Your task to perform on an android device: Is it going to rain today? Image 0: 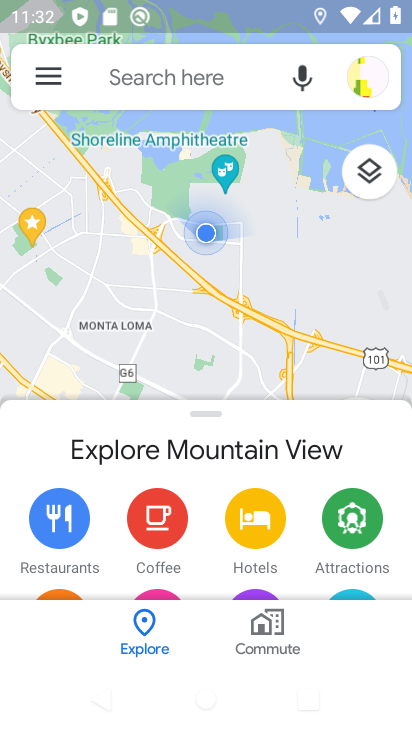
Step 0: press home button
Your task to perform on an android device: Is it going to rain today? Image 1: 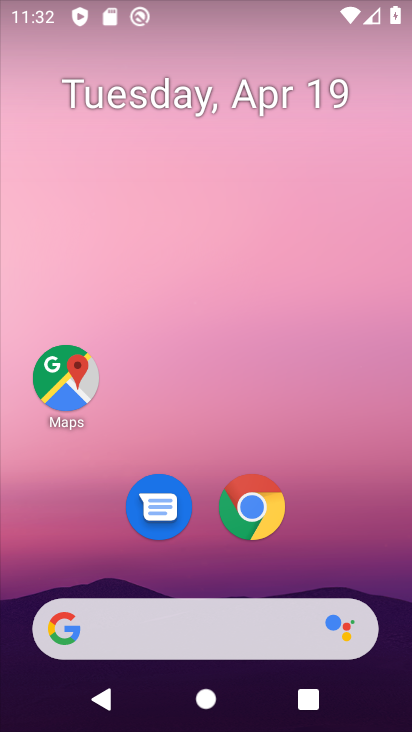
Step 1: drag from (365, 517) to (383, 118)
Your task to perform on an android device: Is it going to rain today? Image 2: 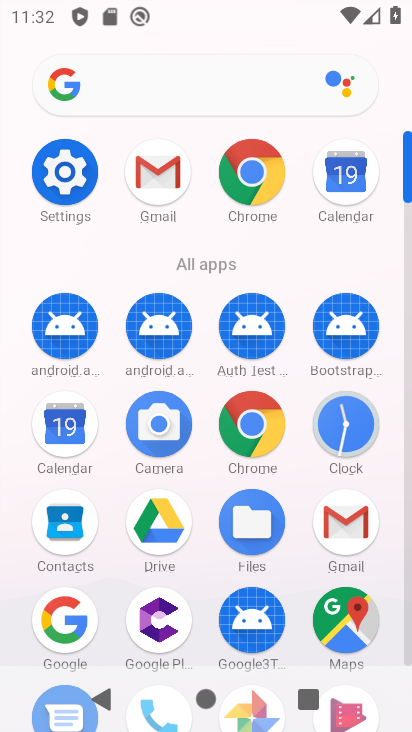
Step 2: click (240, 426)
Your task to perform on an android device: Is it going to rain today? Image 3: 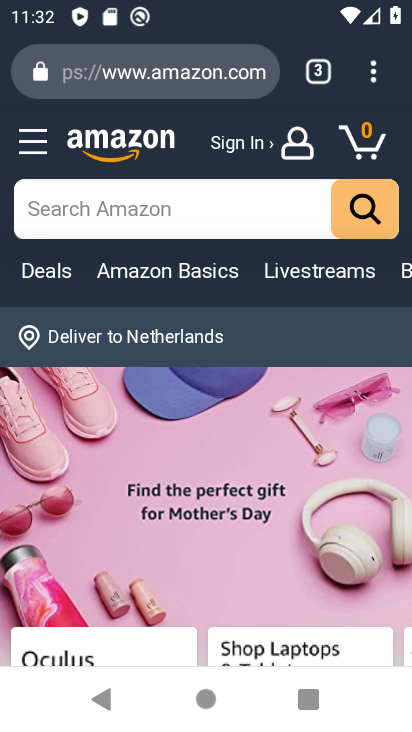
Step 3: click (320, 71)
Your task to perform on an android device: Is it going to rain today? Image 4: 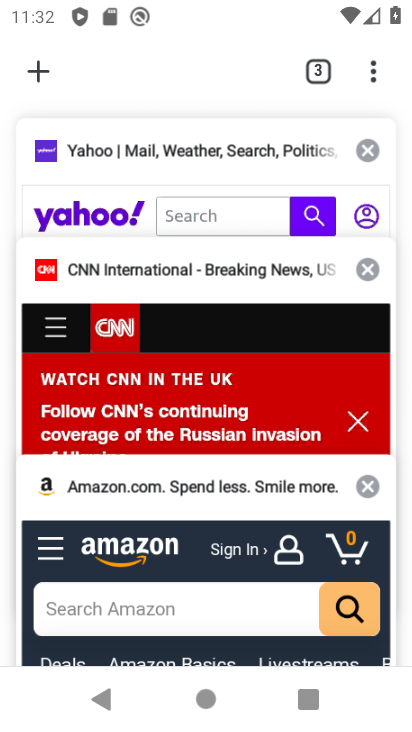
Step 4: click (44, 70)
Your task to perform on an android device: Is it going to rain today? Image 5: 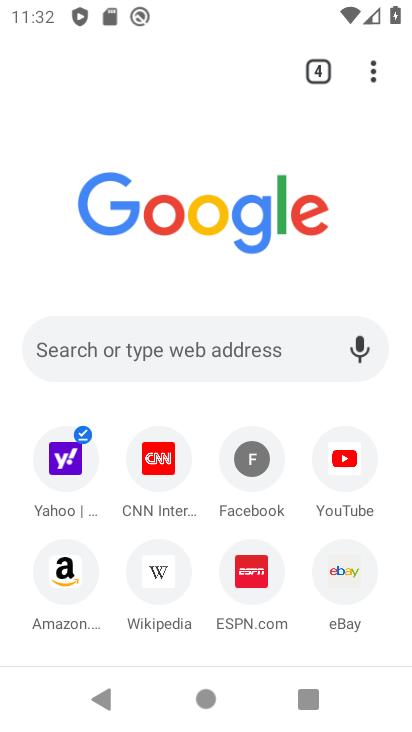
Step 5: click (221, 349)
Your task to perform on an android device: Is it going to rain today? Image 6: 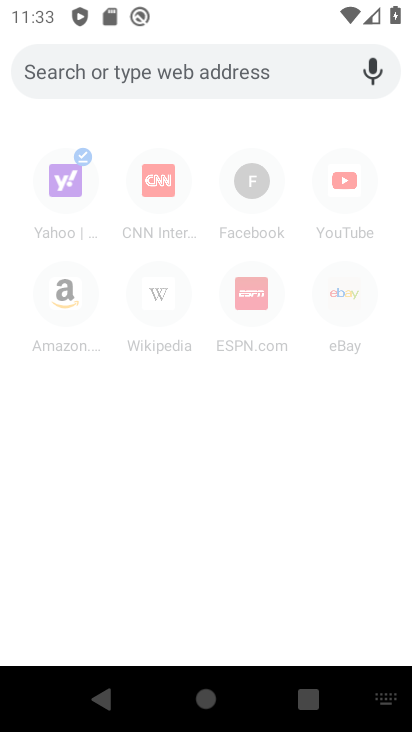
Step 6: type "is it going to rain today"
Your task to perform on an android device: Is it going to rain today? Image 7: 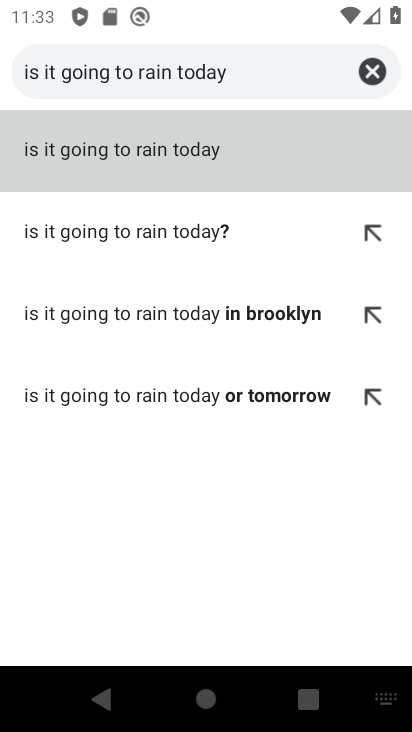
Step 7: click (143, 153)
Your task to perform on an android device: Is it going to rain today? Image 8: 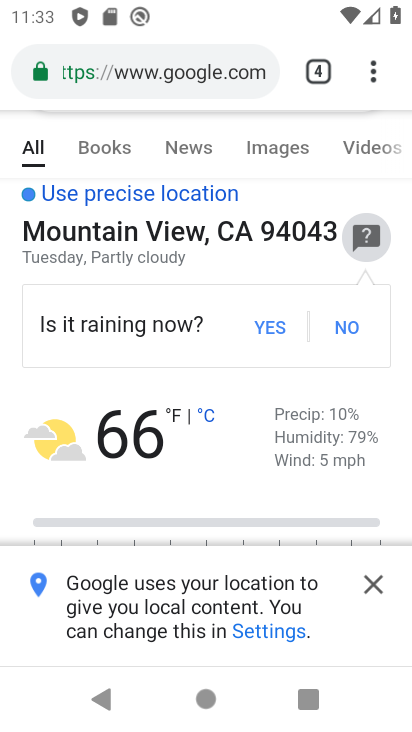
Step 8: click (374, 585)
Your task to perform on an android device: Is it going to rain today? Image 9: 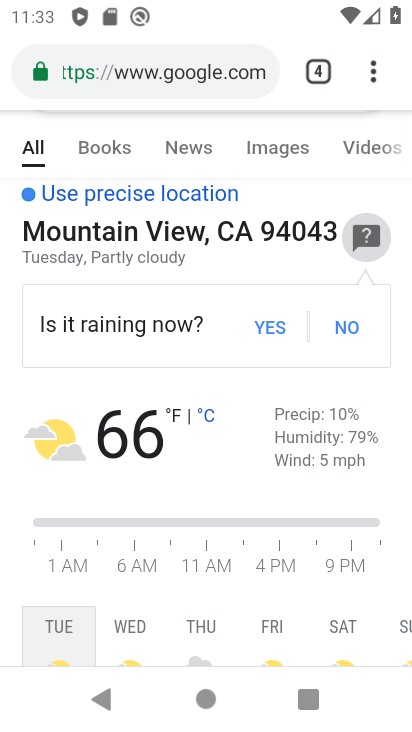
Step 9: task complete